Your task to perform on an android device: turn on wifi Image 0: 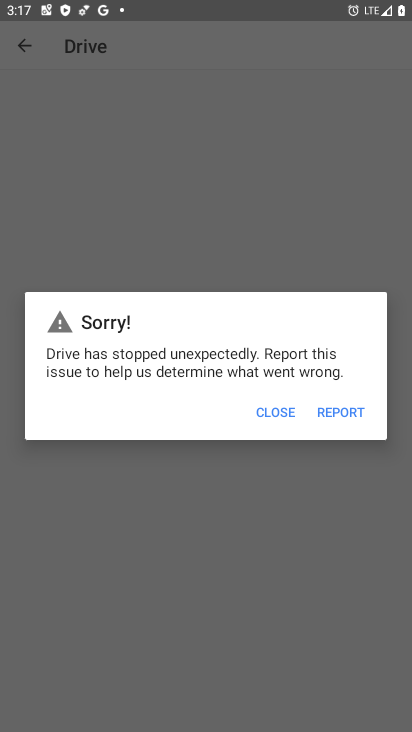
Step 0: press home button
Your task to perform on an android device: turn on wifi Image 1: 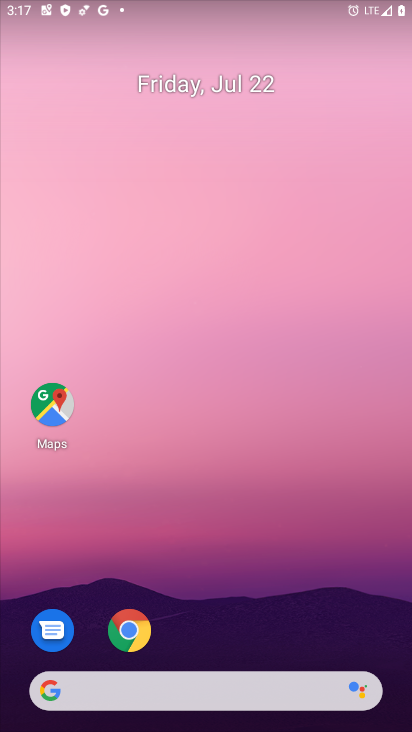
Step 1: drag from (163, 713) to (85, 151)
Your task to perform on an android device: turn on wifi Image 2: 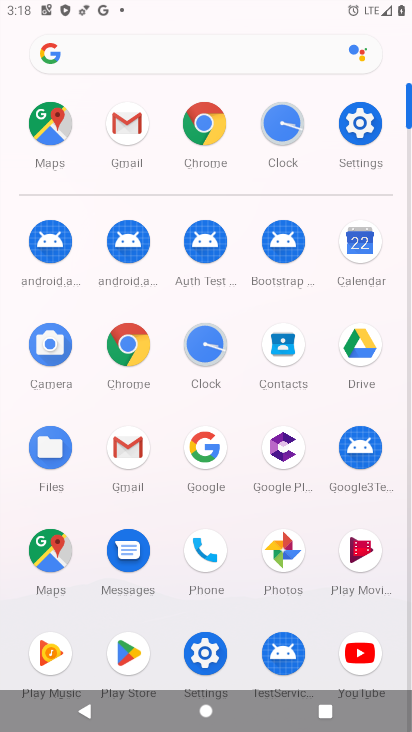
Step 2: click (371, 119)
Your task to perform on an android device: turn on wifi Image 3: 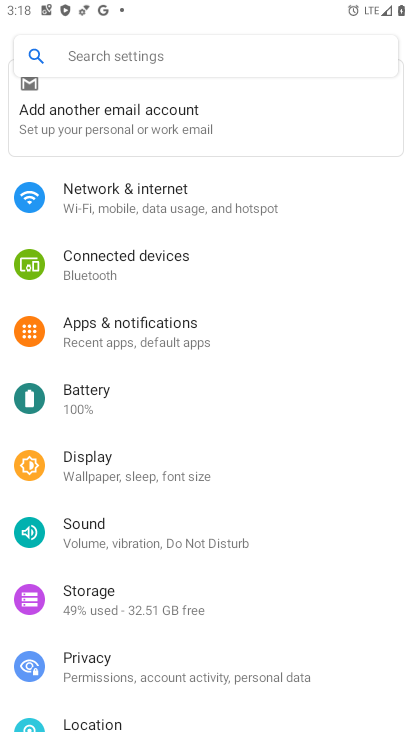
Step 3: click (128, 206)
Your task to perform on an android device: turn on wifi Image 4: 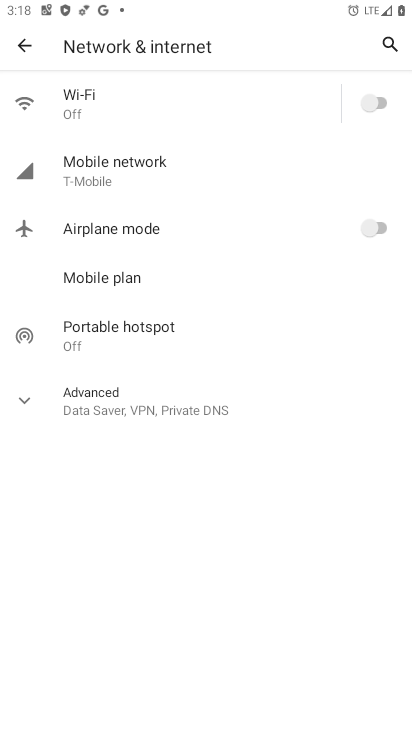
Step 4: click (385, 105)
Your task to perform on an android device: turn on wifi Image 5: 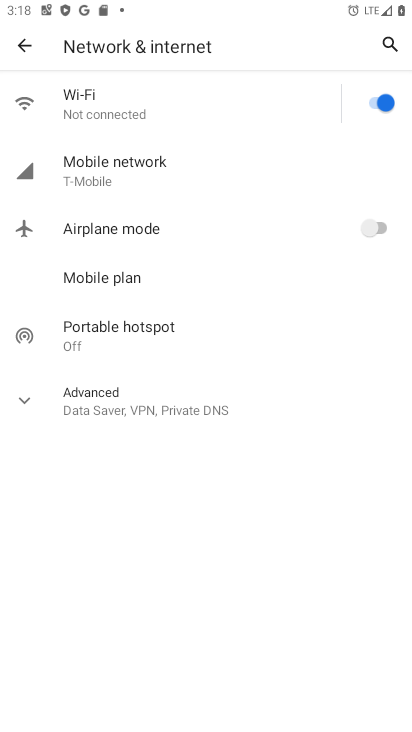
Step 5: task complete